Your task to perform on an android device: set default search engine in the chrome app Image 0: 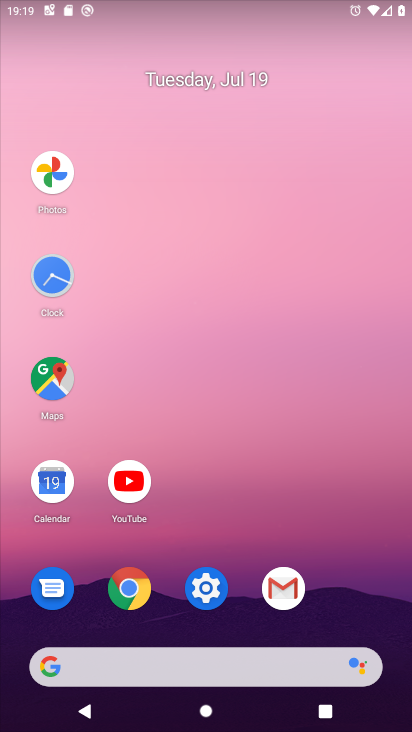
Step 0: click (124, 599)
Your task to perform on an android device: set default search engine in the chrome app Image 1: 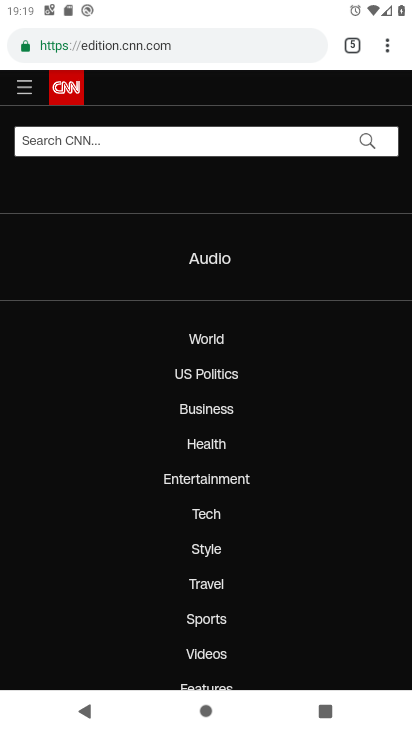
Step 1: click (390, 45)
Your task to perform on an android device: set default search engine in the chrome app Image 2: 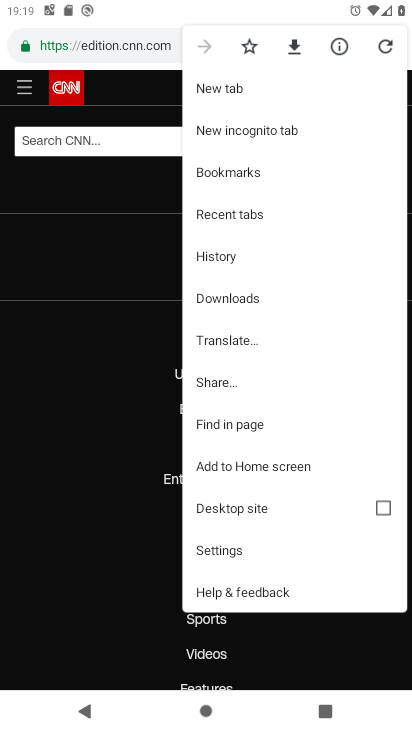
Step 2: click (219, 544)
Your task to perform on an android device: set default search engine in the chrome app Image 3: 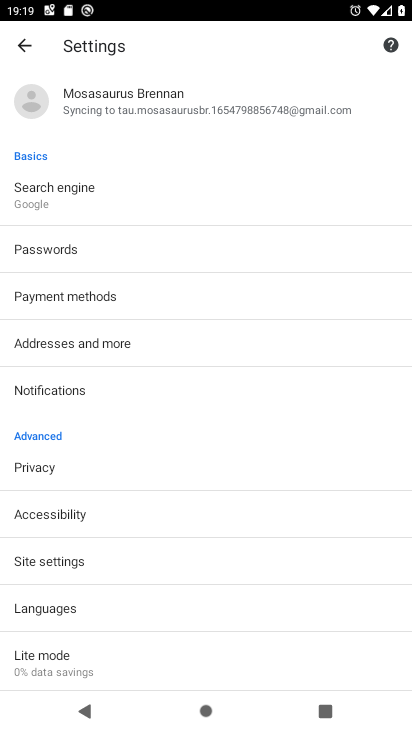
Step 3: click (49, 175)
Your task to perform on an android device: set default search engine in the chrome app Image 4: 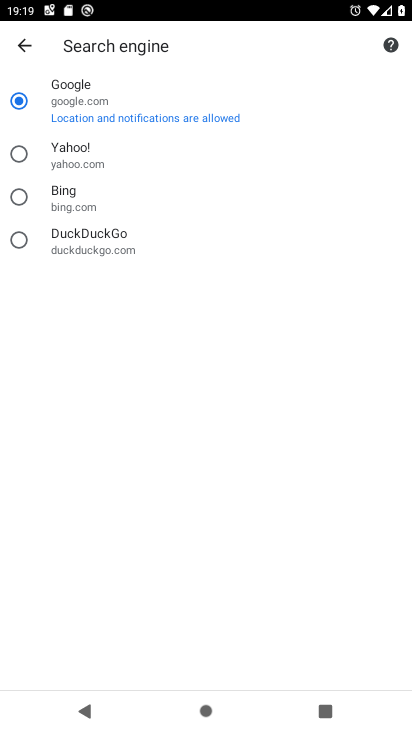
Step 4: click (17, 150)
Your task to perform on an android device: set default search engine in the chrome app Image 5: 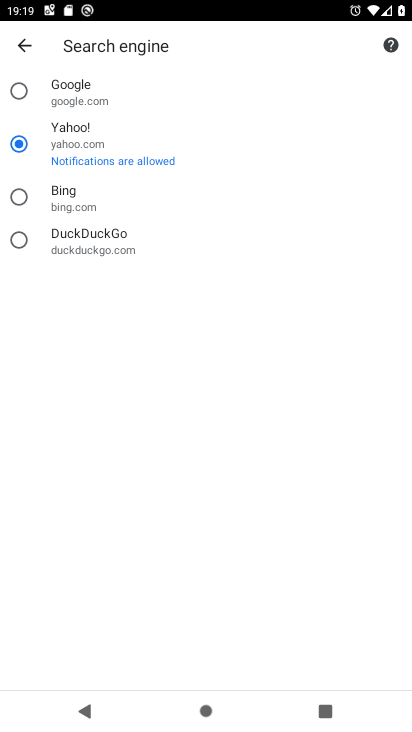
Step 5: task complete